Your task to perform on an android device: What is the recent news? Image 0: 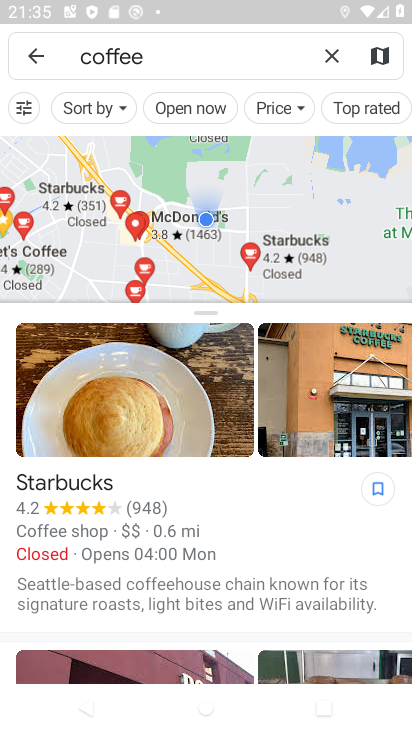
Step 0: press home button
Your task to perform on an android device: What is the recent news? Image 1: 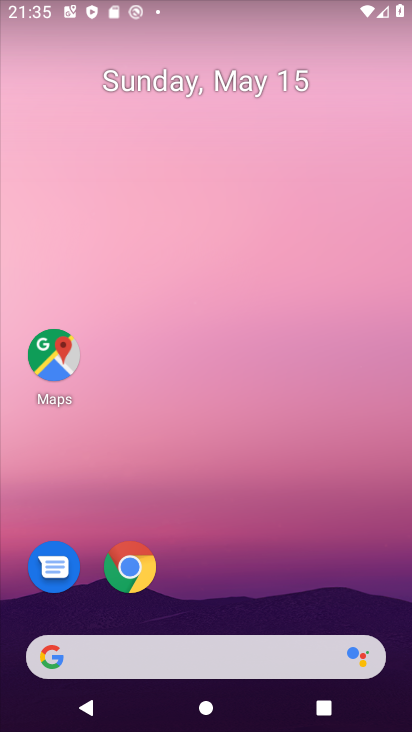
Step 1: task complete